Your task to perform on an android device: turn off improve location accuracy Image 0: 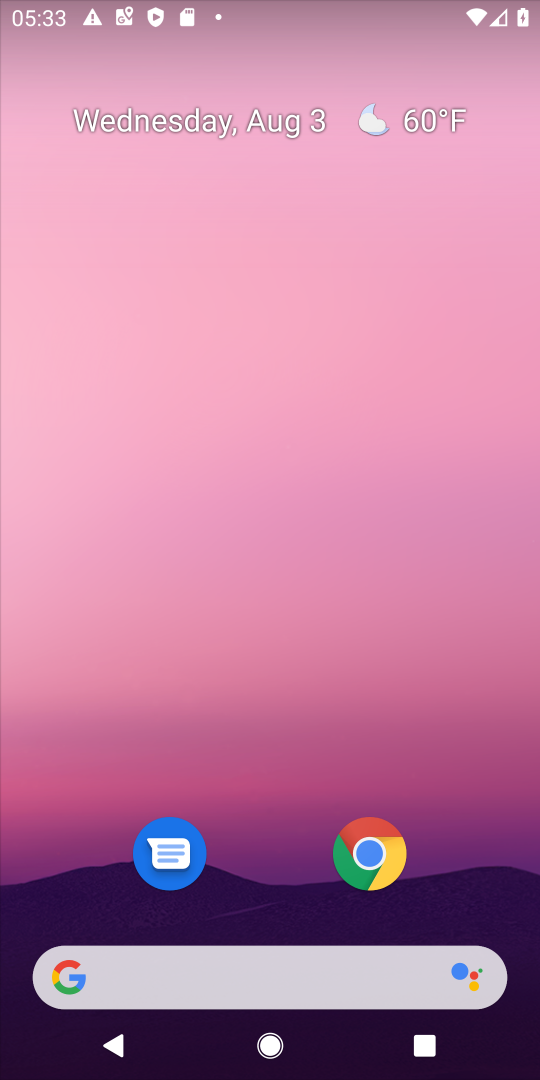
Step 0: drag from (257, 628) to (255, 374)
Your task to perform on an android device: turn off improve location accuracy Image 1: 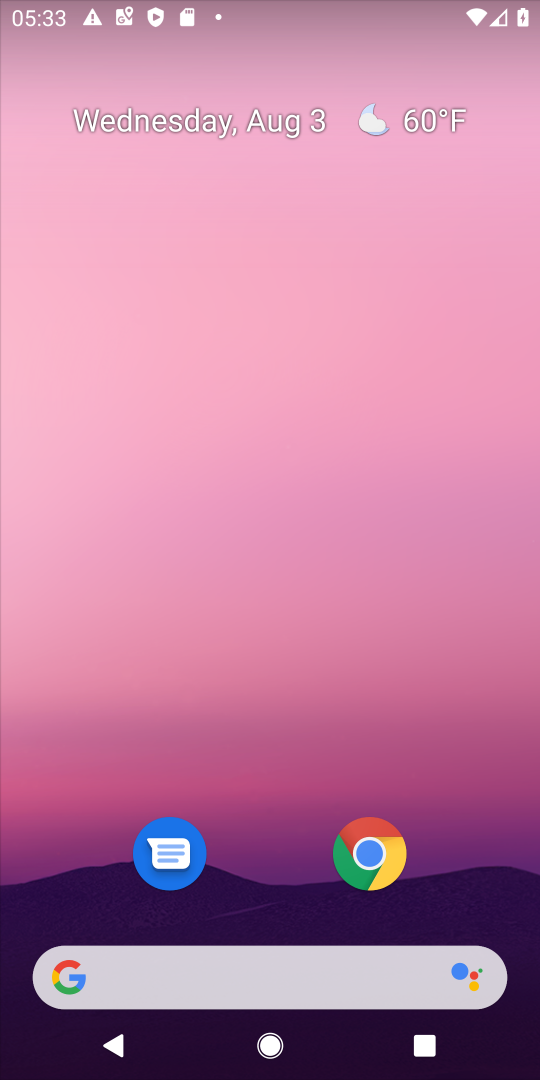
Step 1: drag from (259, 919) to (256, 115)
Your task to perform on an android device: turn off improve location accuracy Image 2: 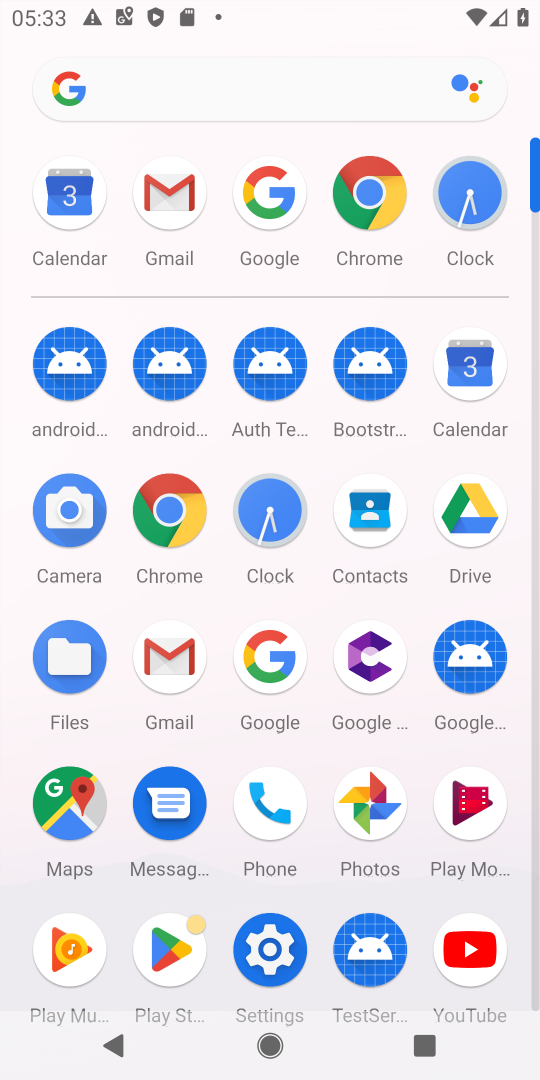
Step 2: click (261, 944)
Your task to perform on an android device: turn off improve location accuracy Image 3: 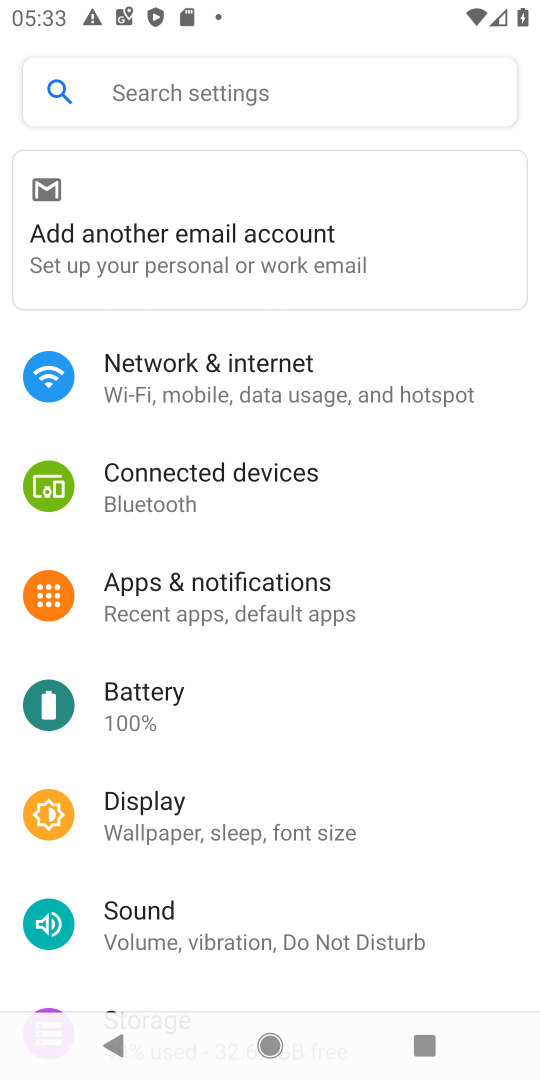
Step 3: drag from (211, 908) to (202, 311)
Your task to perform on an android device: turn off improve location accuracy Image 4: 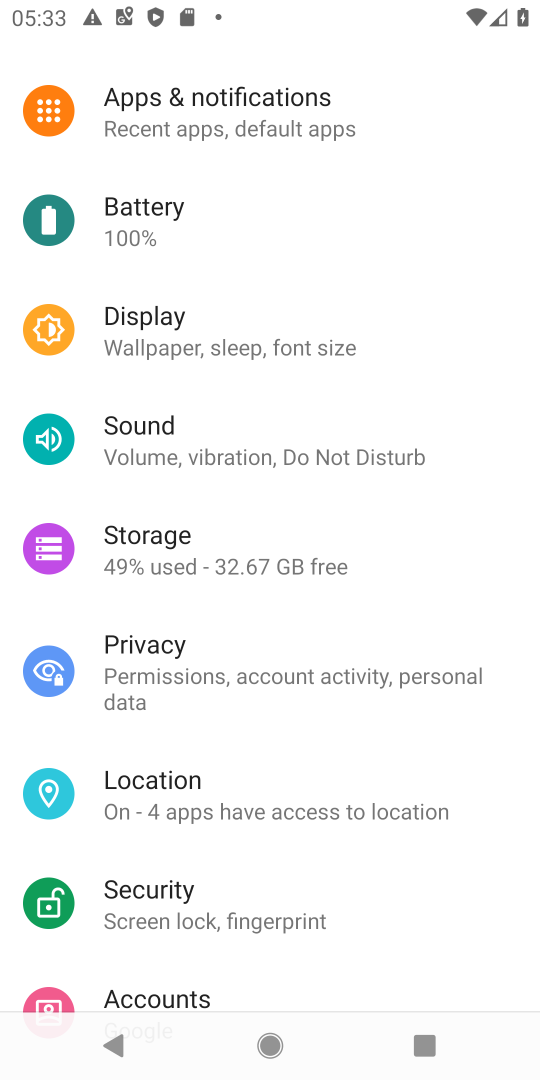
Step 4: click (155, 780)
Your task to perform on an android device: turn off improve location accuracy Image 5: 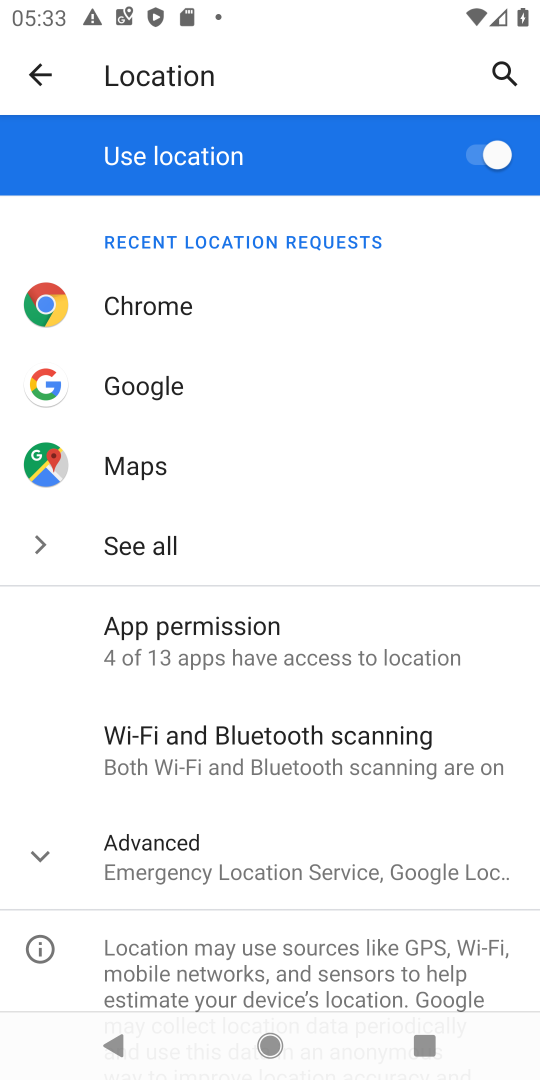
Step 5: click (190, 865)
Your task to perform on an android device: turn off improve location accuracy Image 6: 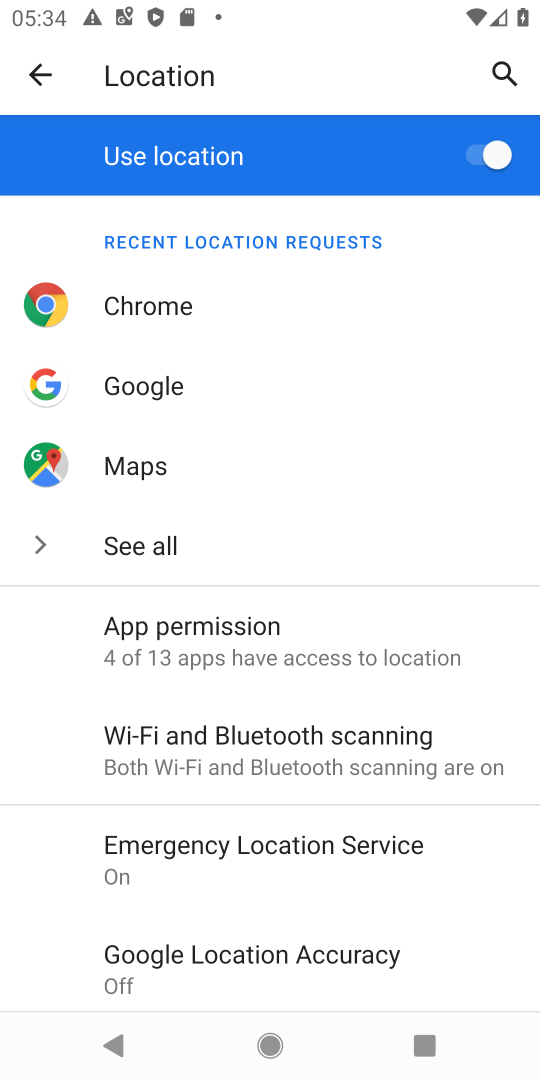
Step 6: click (205, 949)
Your task to perform on an android device: turn off improve location accuracy Image 7: 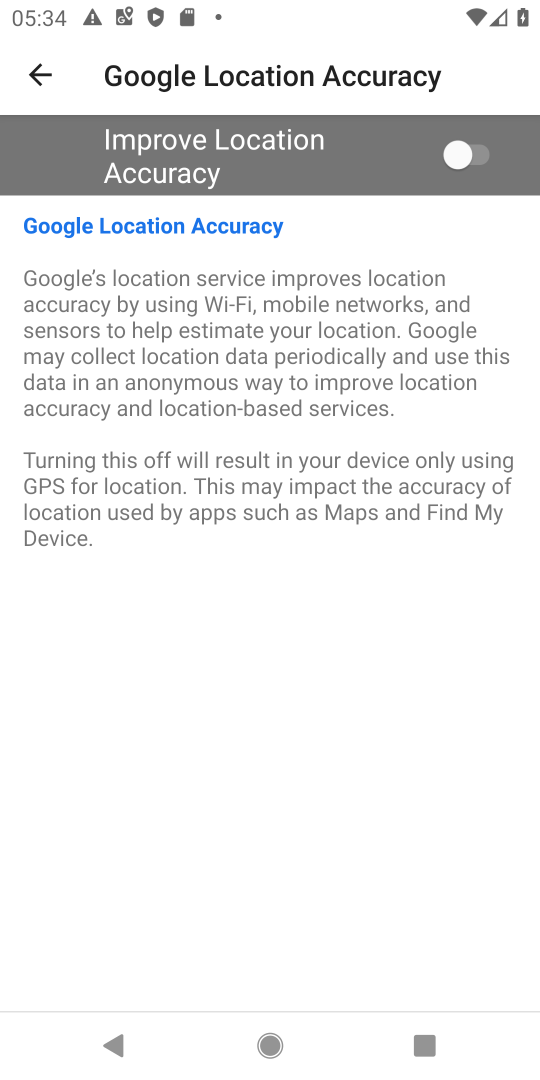
Step 7: task complete